Your task to perform on an android device: toggle priority inbox in the gmail app Image 0: 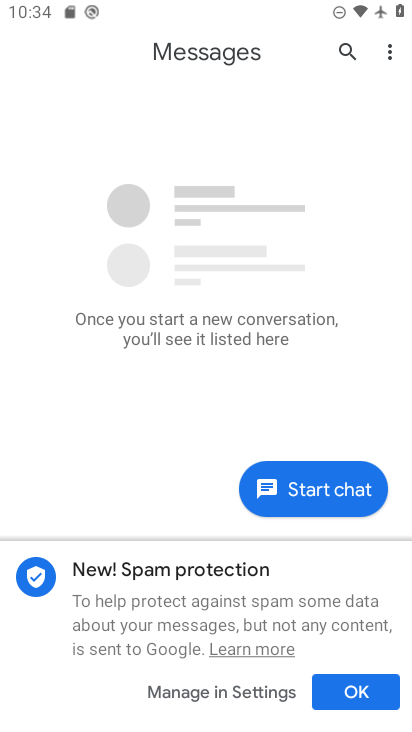
Step 0: press home button
Your task to perform on an android device: toggle priority inbox in the gmail app Image 1: 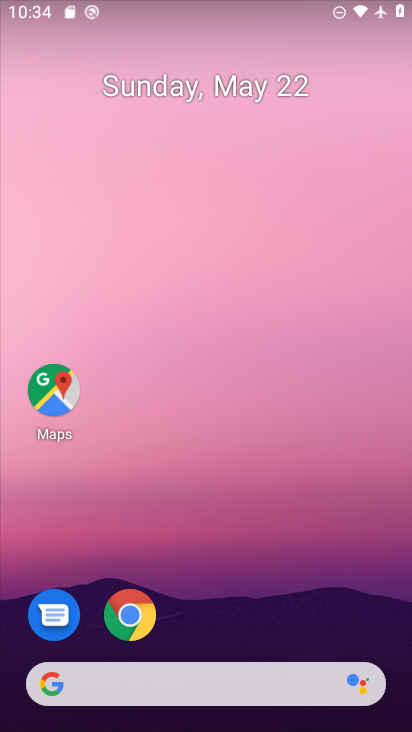
Step 1: drag from (257, 610) to (290, 87)
Your task to perform on an android device: toggle priority inbox in the gmail app Image 2: 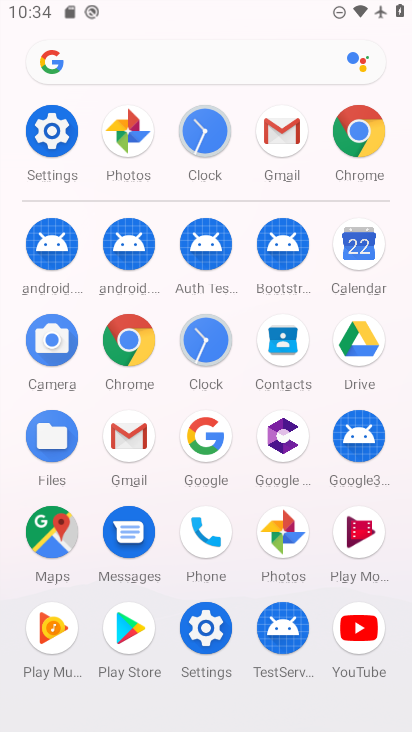
Step 2: click (287, 135)
Your task to perform on an android device: toggle priority inbox in the gmail app Image 3: 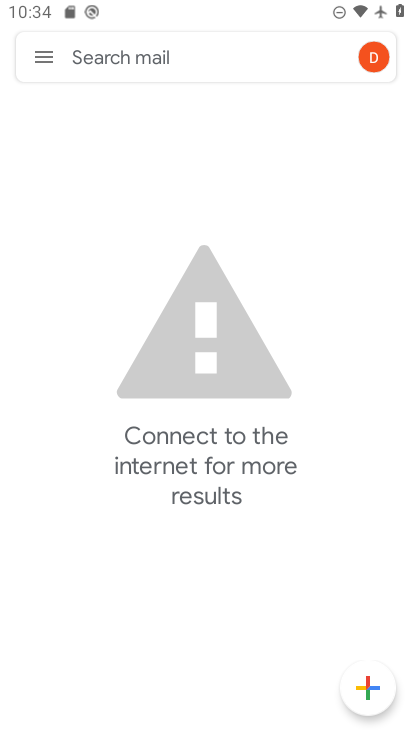
Step 3: click (42, 47)
Your task to perform on an android device: toggle priority inbox in the gmail app Image 4: 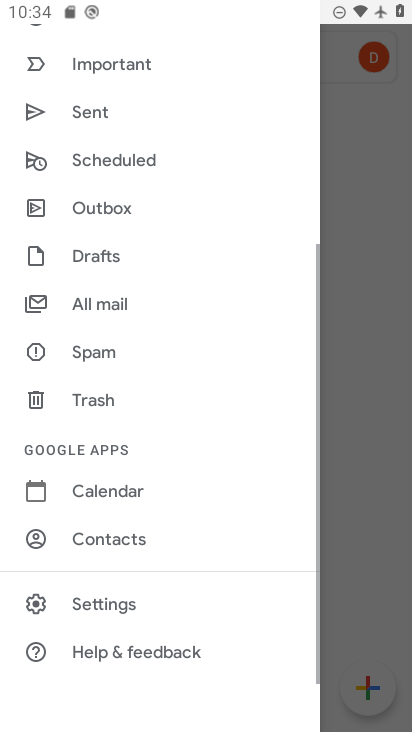
Step 4: click (126, 619)
Your task to perform on an android device: toggle priority inbox in the gmail app Image 5: 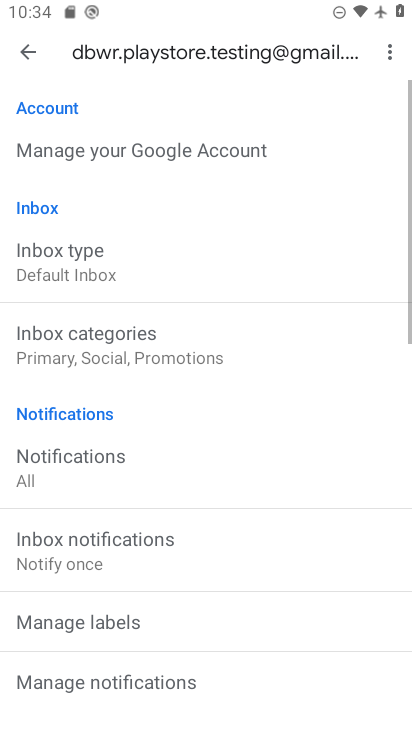
Step 5: drag from (171, 489) to (272, 180)
Your task to perform on an android device: toggle priority inbox in the gmail app Image 6: 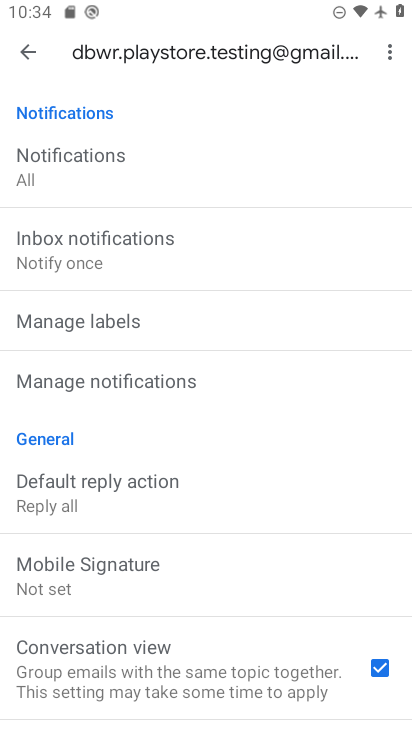
Step 6: drag from (133, 195) to (132, 516)
Your task to perform on an android device: toggle priority inbox in the gmail app Image 7: 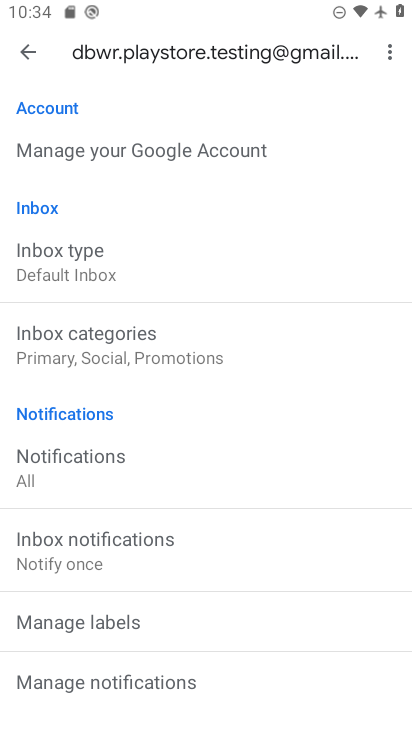
Step 7: click (83, 260)
Your task to perform on an android device: toggle priority inbox in the gmail app Image 8: 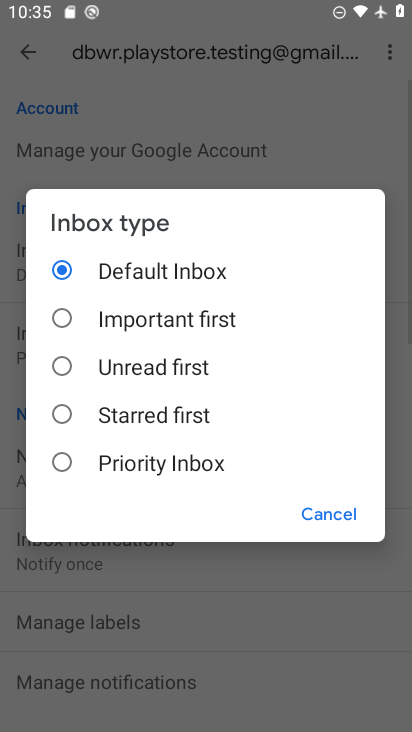
Step 8: click (137, 471)
Your task to perform on an android device: toggle priority inbox in the gmail app Image 9: 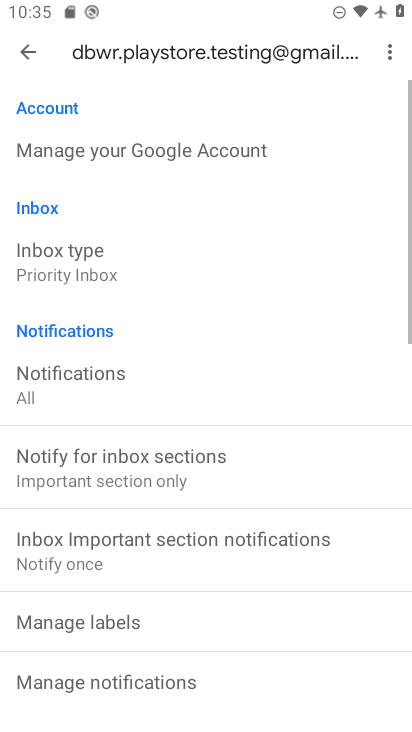
Step 9: task complete